Your task to perform on an android device: turn off location Image 0: 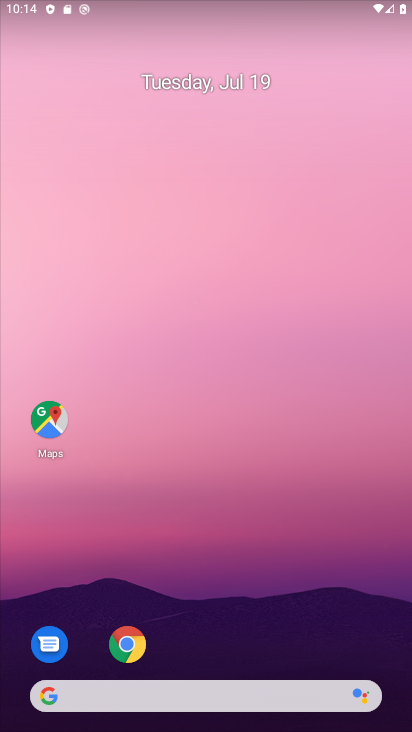
Step 0: drag from (181, 671) to (105, 143)
Your task to perform on an android device: turn off location Image 1: 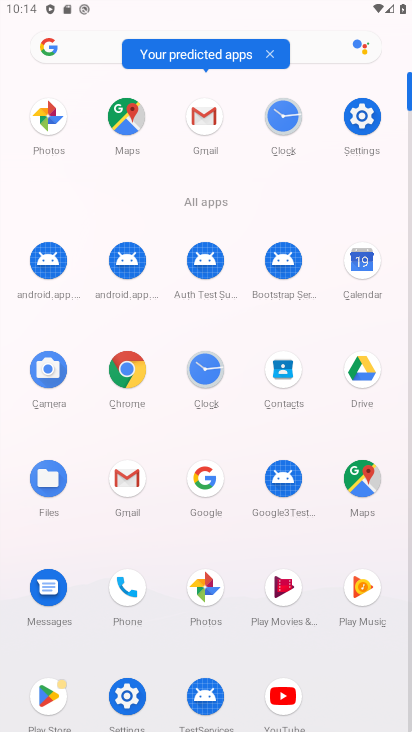
Step 1: click (369, 118)
Your task to perform on an android device: turn off location Image 2: 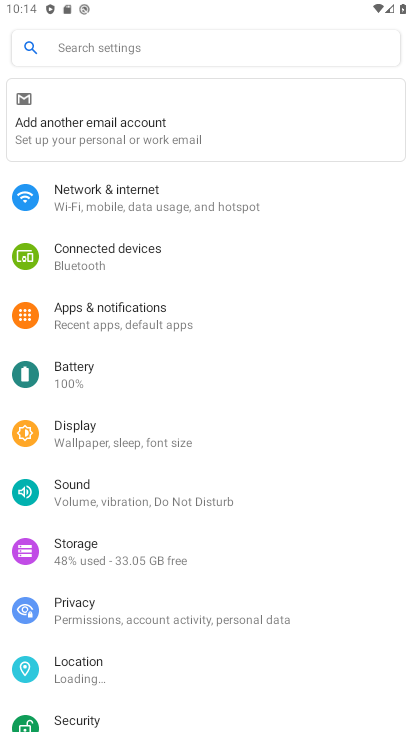
Step 2: click (87, 663)
Your task to perform on an android device: turn off location Image 3: 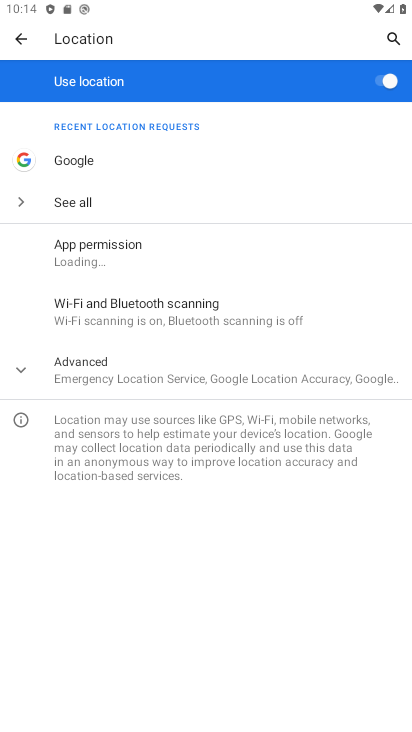
Step 3: click (377, 85)
Your task to perform on an android device: turn off location Image 4: 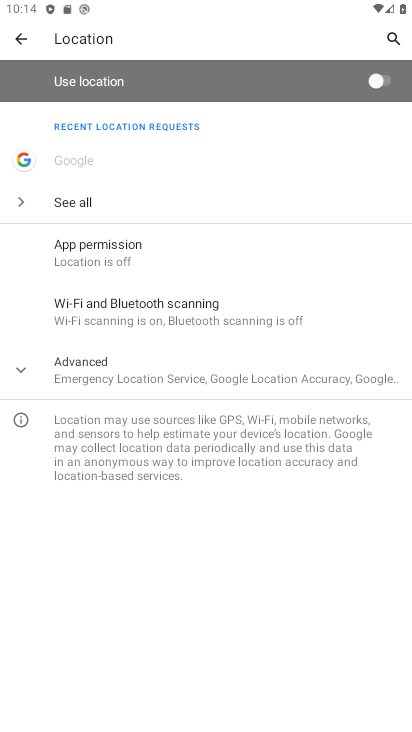
Step 4: task complete